Your task to perform on an android device: toggle improve location accuracy Image 0: 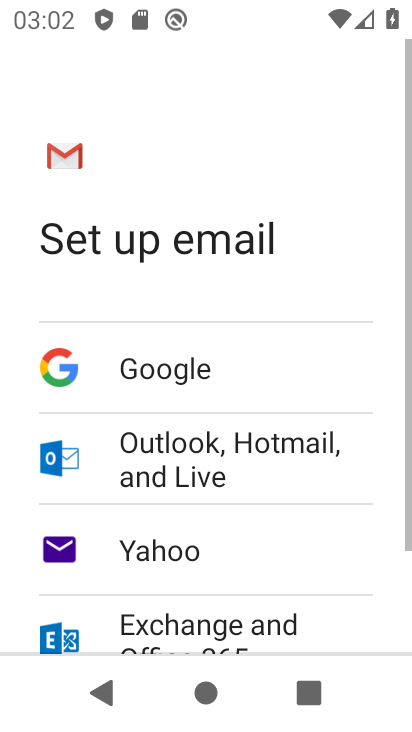
Step 0: press home button
Your task to perform on an android device: toggle improve location accuracy Image 1: 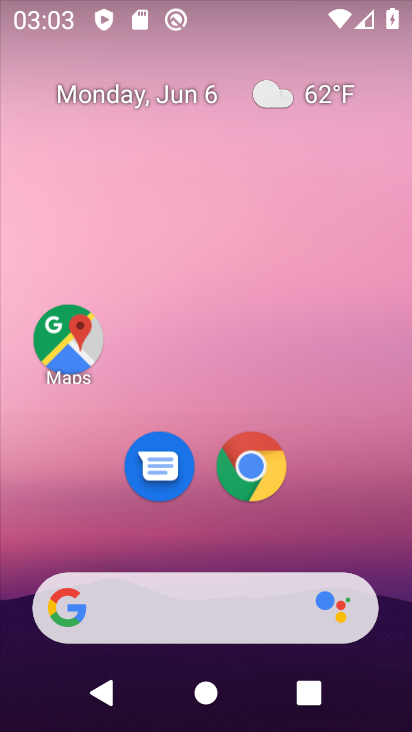
Step 1: drag from (372, 496) to (255, 95)
Your task to perform on an android device: toggle improve location accuracy Image 2: 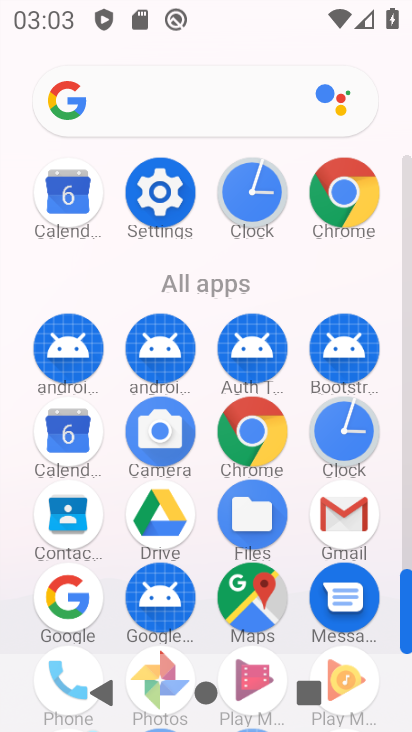
Step 2: click (162, 178)
Your task to perform on an android device: toggle improve location accuracy Image 3: 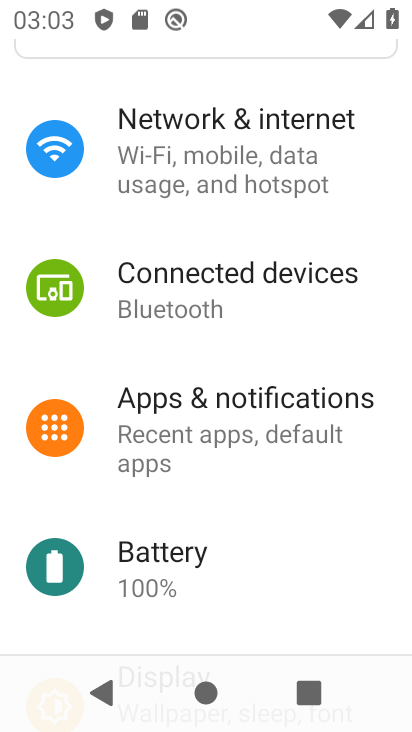
Step 3: drag from (234, 515) to (264, 129)
Your task to perform on an android device: toggle improve location accuracy Image 4: 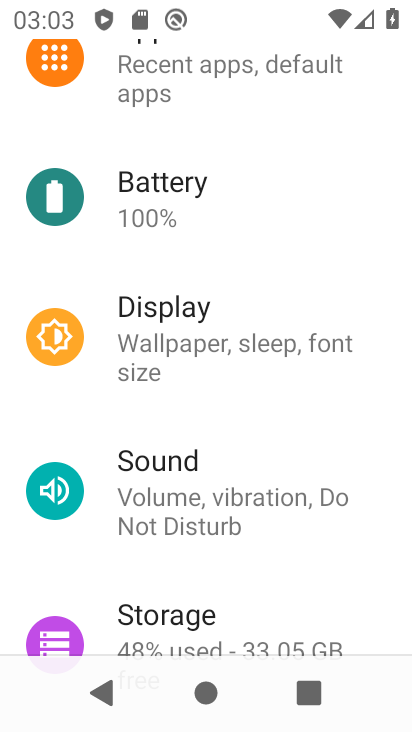
Step 4: drag from (230, 580) to (251, 162)
Your task to perform on an android device: toggle improve location accuracy Image 5: 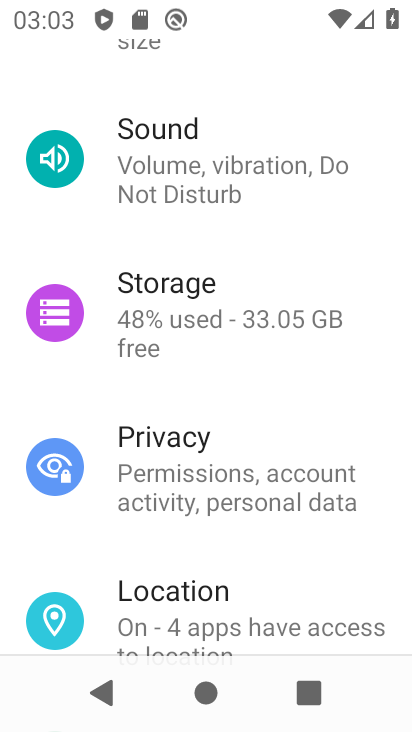
Step 5: drag from (202, 549) to (214, 284)
Your task to perform on an android device: toggle improve location accuracy Image 6: 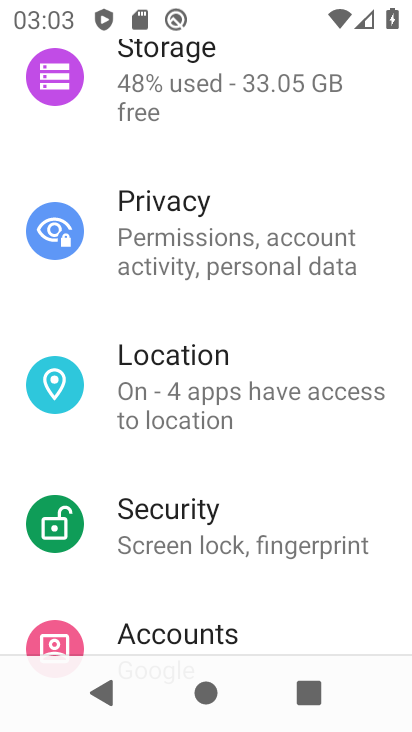
Step 6: click (174, 408)
Your task to perform on an android device: toggle improve location accuracy Image 7: 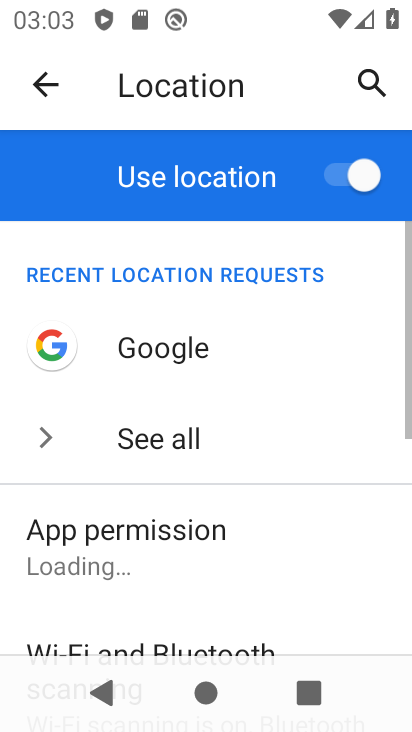
Step 7: drag from (307, 469) to (300, 242)
Your task to perform on an android device: toggle improve location accuracy Image 8: 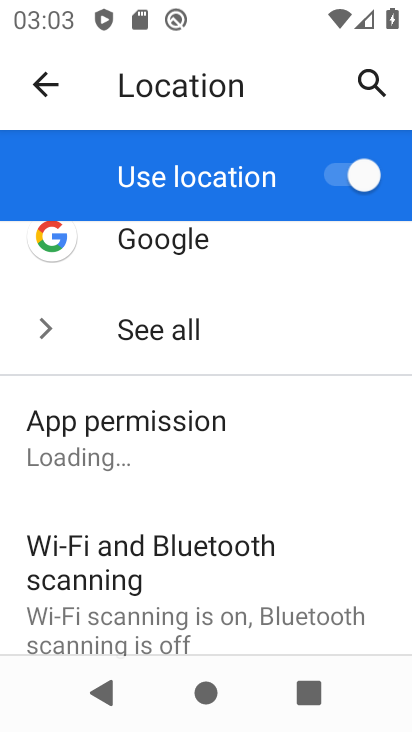
Step 8: drag from (241, 570) to (306, 320)
Your task to perform on an android device: toggle improve location accuracy Image 9: 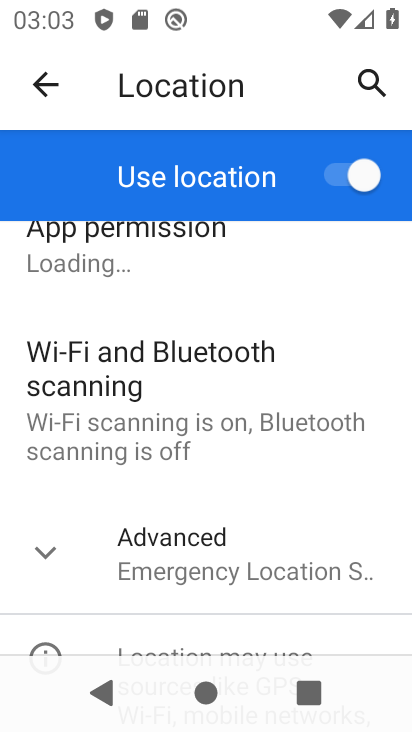
Step 9: drag from (149, 523) to (260, 332)
Your task to perform on an android device: toggle improve location accuracy Image 10: 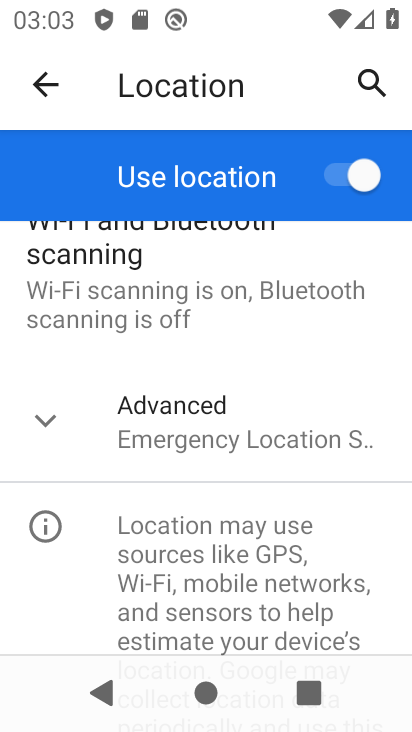
Step 10: click (221, 408)
Your task to perform on an android device: toggle improve location accuracy Image 11: 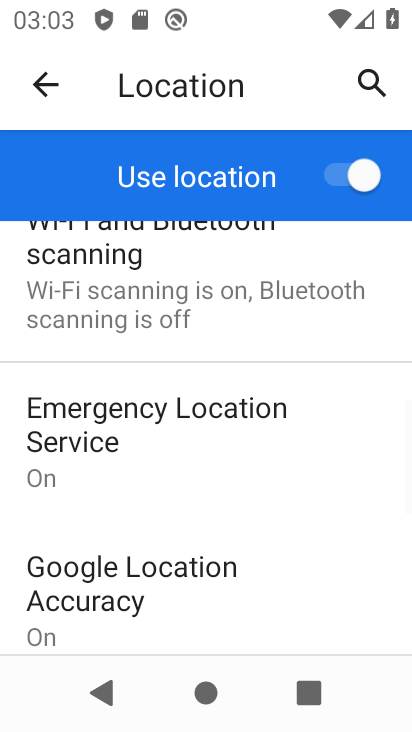
Step 11: drag from (337, 563) to (307, 259)
Your task to perform on an android device: toggle improve location accuracy Image 12: 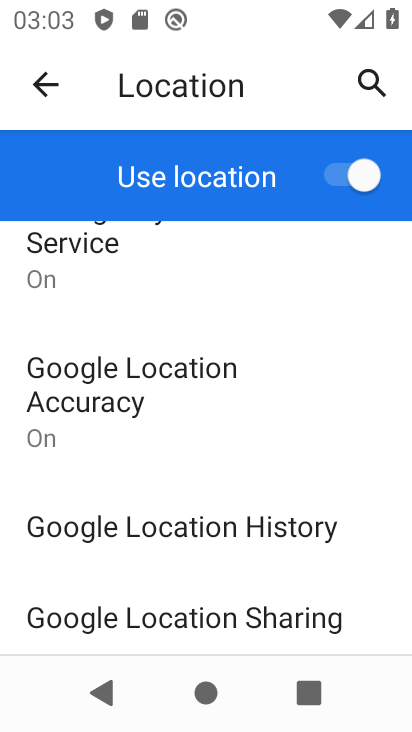
Step 12: click (211, 371)
Your task to perform on an android device: toggle improve location accuracy Image 13: 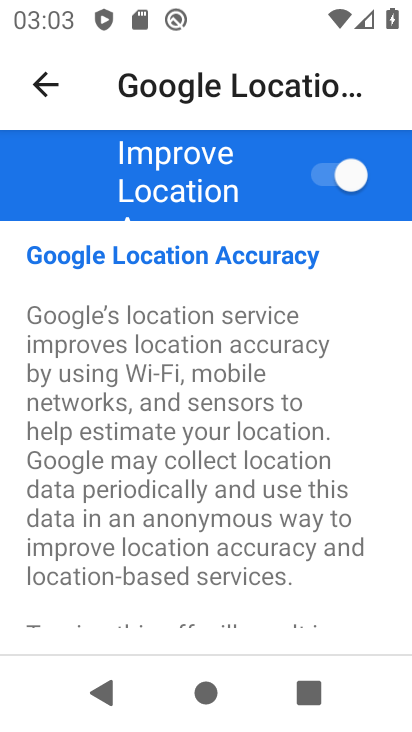
Step 13: click (318, 173)
Your task to perform on an android device: toggle improve location accuracy Image 14: 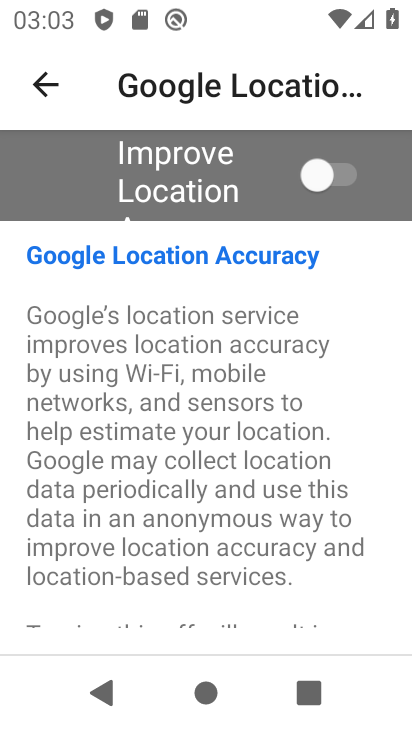
Step 14: task complete